Your task to perform on an android device: Open ESPN.com Image 0: 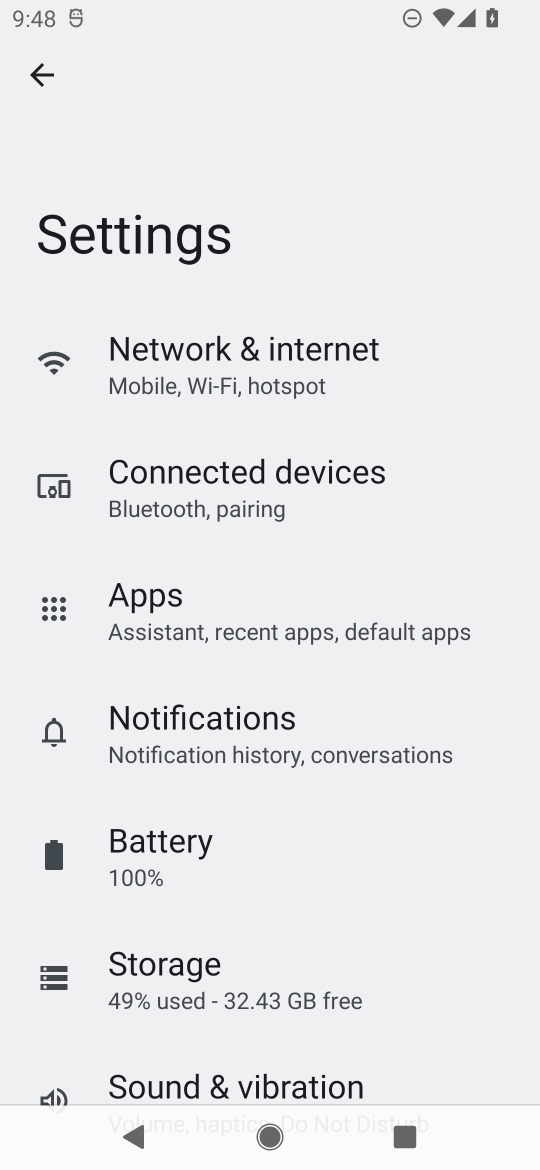
Step 0: press home button
Your task to perform on an android device: Open ESPN.com Image 1: 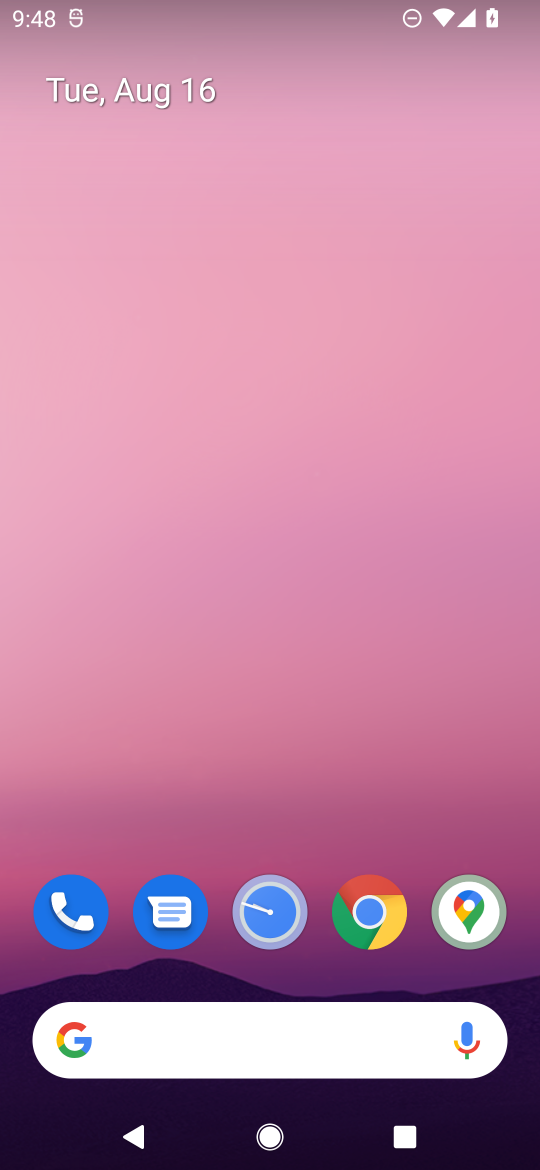
Step 1: click (342, 902)
Your task to perform on an android device: Open ESPN.com Image 2: 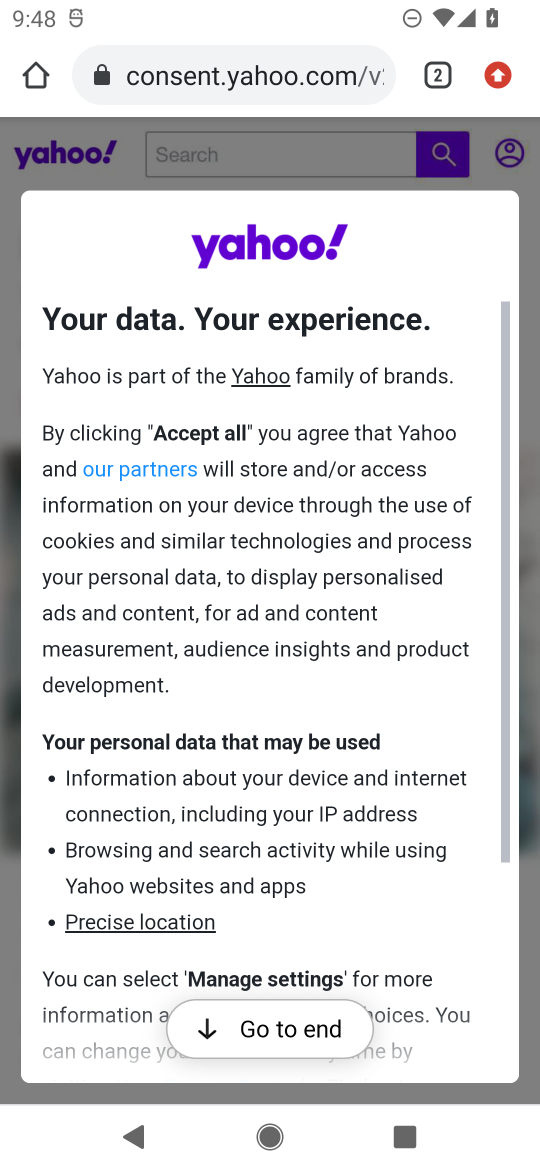
Step 2: click (430, 88)
Your task to perform on an android device: Open ESPN.com Image 3: 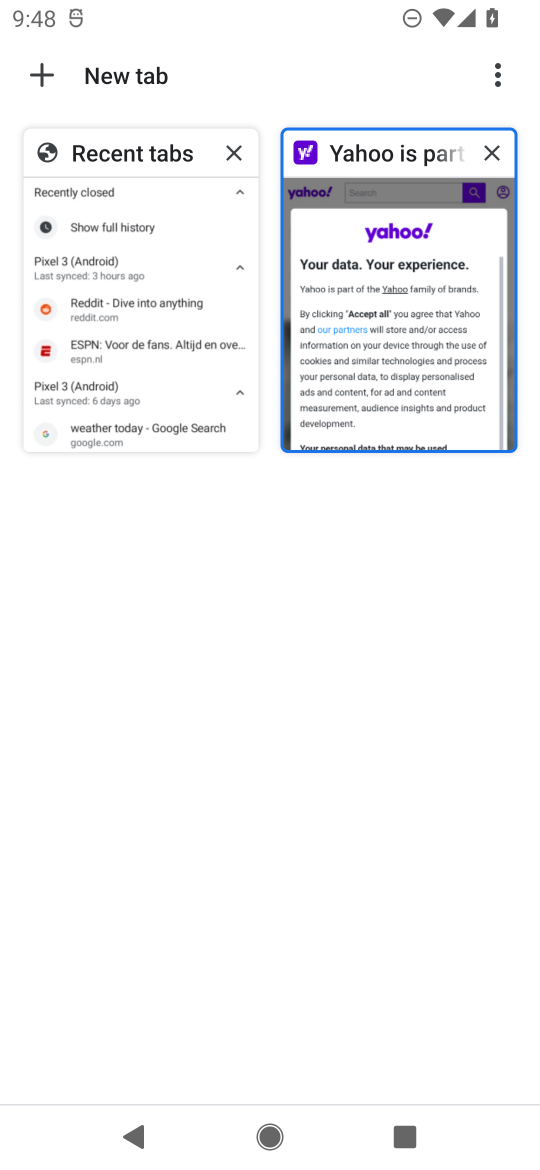
Step 3: click (46, 77)
Your task to perform on an android device: Open ESPN.com Image 4: 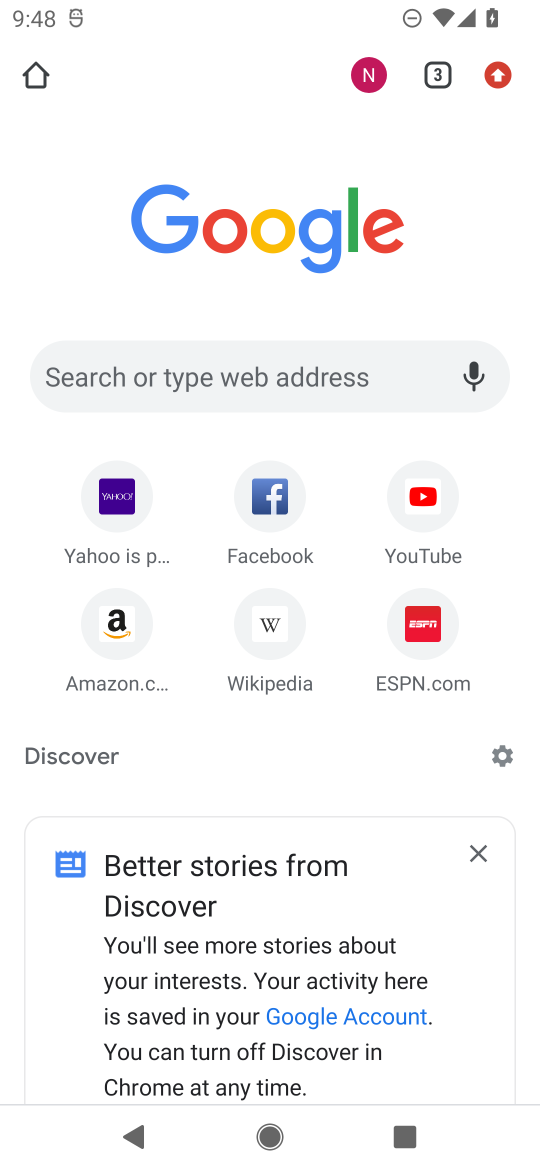
Step 4: click (402, 618)
Your task to perform on an android device: Open ESPN.com Image 5: 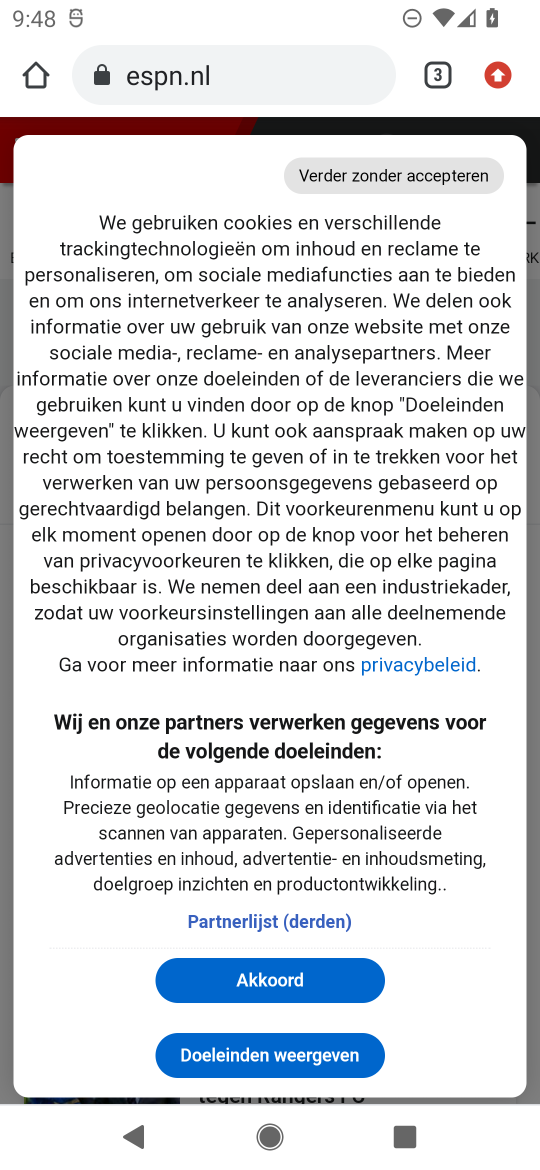
Step 5: task complete